Your task to perform on an android device: Open privacy settings Image 0: 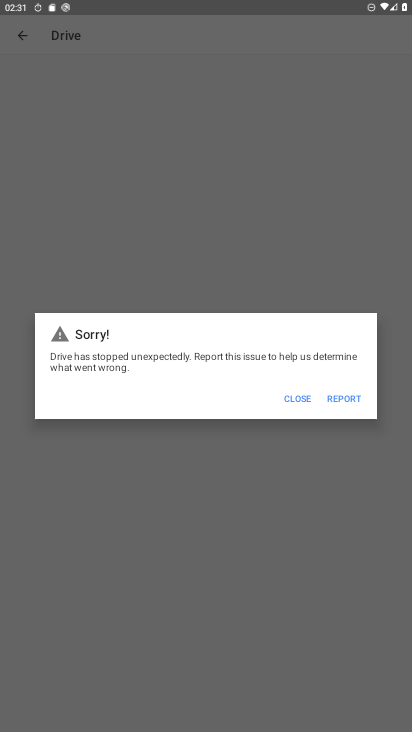
Step 0: drag from (27, 681) to (207, 193)
Your task to perform on an android device: Open privacy settings Image 1: 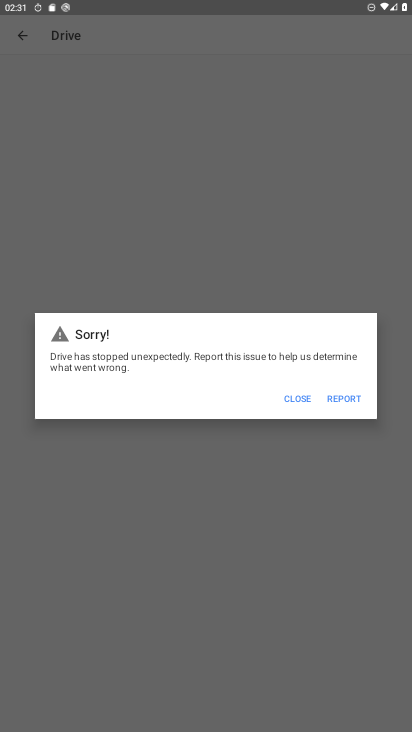
Step 1: press home button
Your task to perform on an android device: Open privacy settings Image 2: 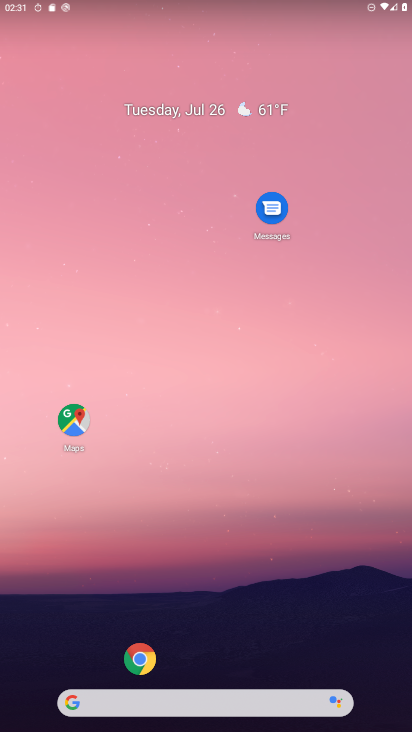
Step 2: drag from (64, 667) to (272, 229)
Your task to perform on an android device: Open privacy settings Image 3: 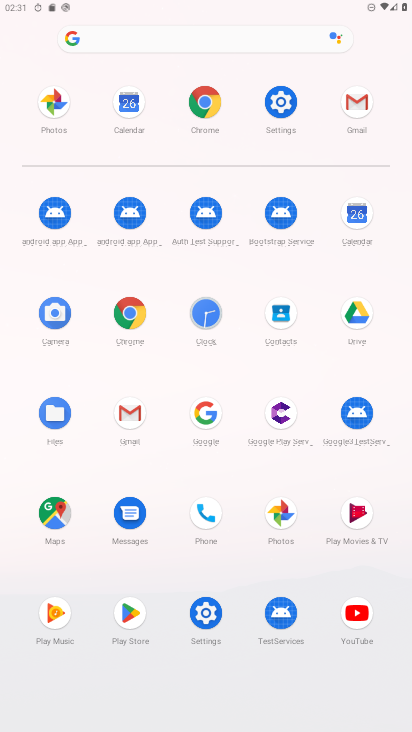
Step 3: click (198, 607)
Your task to perform on an android device: Open privacy settings Image 4: 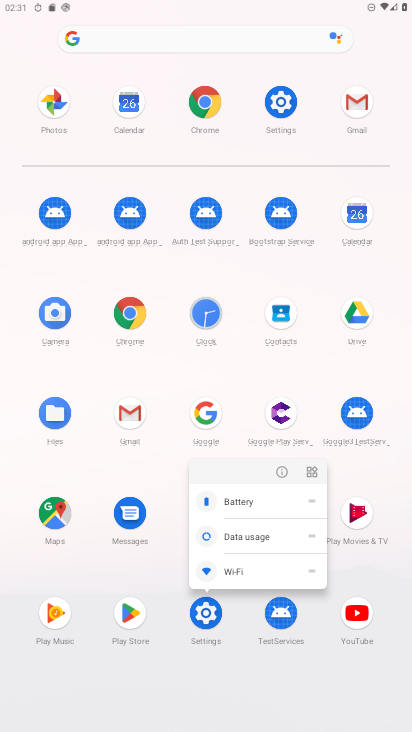
Step 4: click (202, 622)
Your task to perform on an android device: Open privacy settings Image 5: 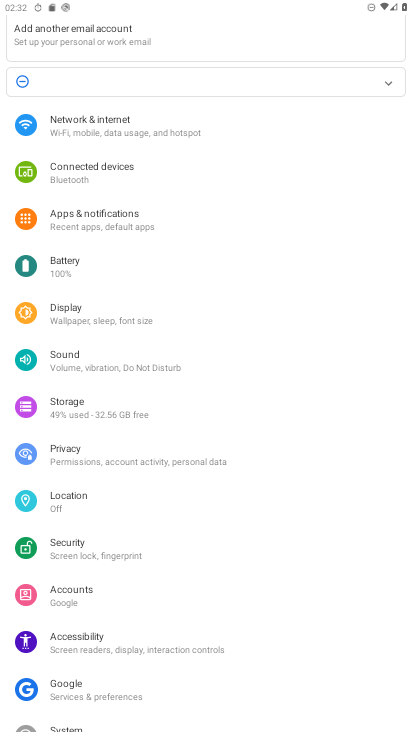
Step 5: click (84, 452)
Your task to perform on an android device: Open privacy settings Image 6: 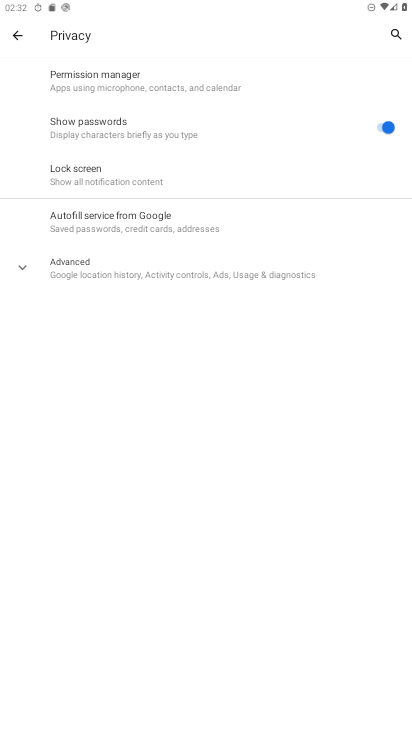
Step 6: task complete